Your task to perform on an android device: Open privacy settings Image 0: 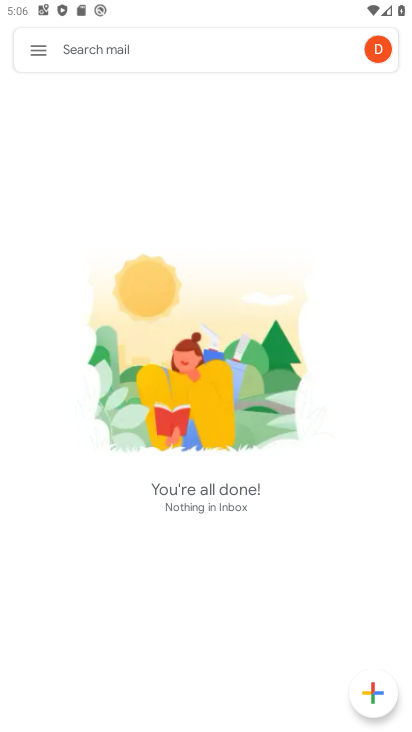
Step 0: press home button
Your task to perform on an android device: Open privacy settings Image 1: 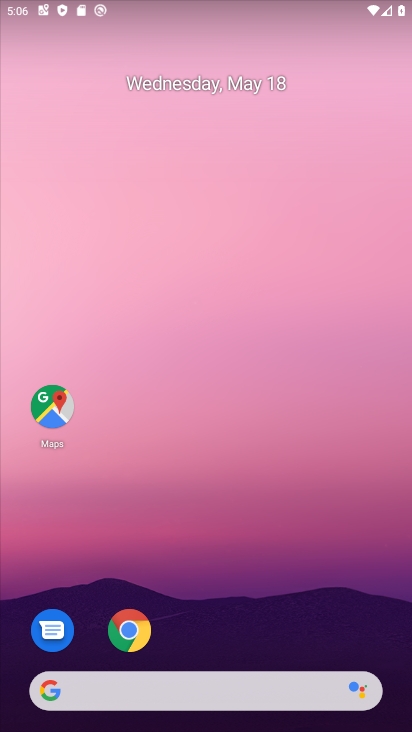
Step 1: drag from (180, 643) to (199, 271)
Your task to perform on an android device: Open privacy settings Image 2: 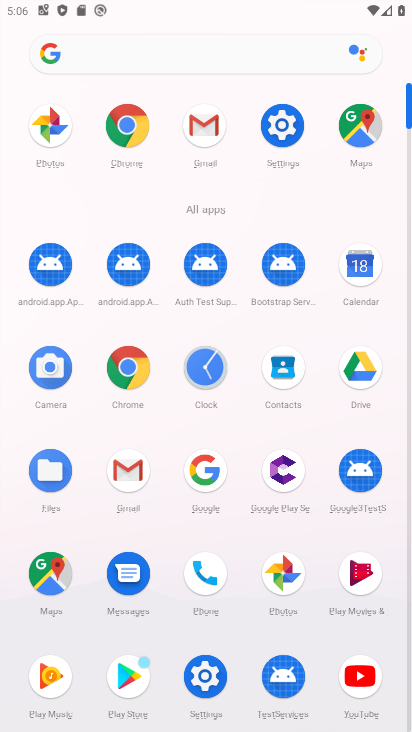
Step 2: click (283, 126)
Your task to perform on an android device: Open privacy settings Image 3: 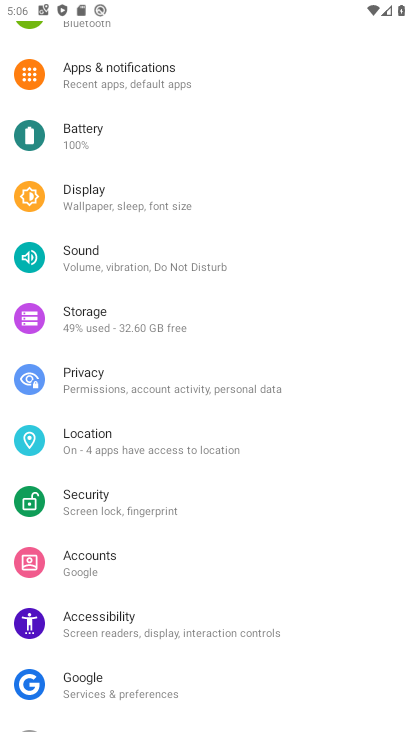
Step 3: click (104, 379)
Your task to perform on an android device: Open privacy settings Image 4: 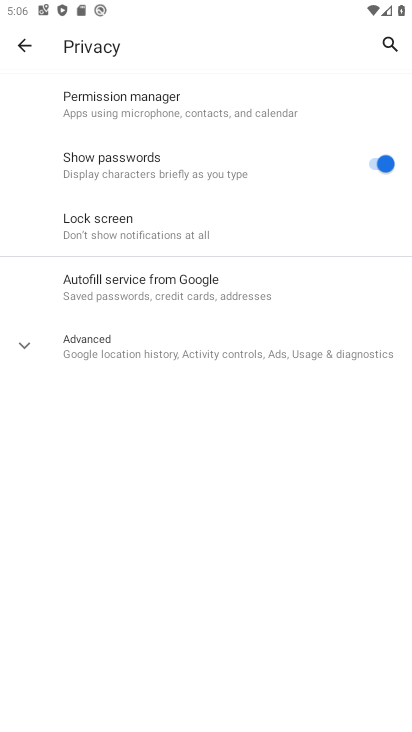
Step 4: click (115, 346)
Your task to perform on an android device: Open privacy settings Image 5: 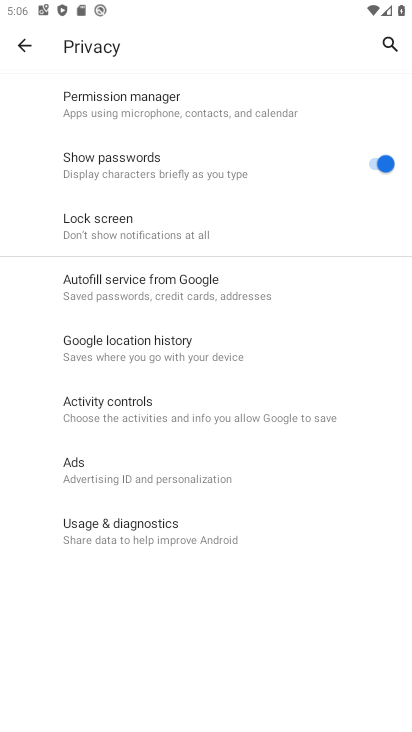
Step 5: task complete